Your task to perform on an android device: add a contact in the contacts app Image 0: 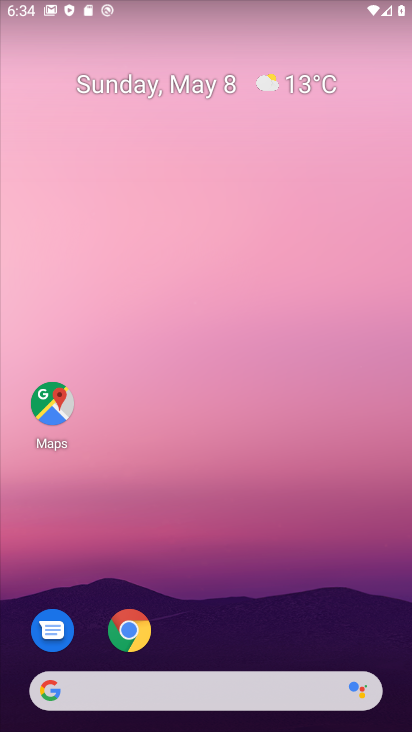
Step 0: drag from (266, 594) to (196, 38)
Your task to perform on an android device: add a contact in the contacts app Image 1: 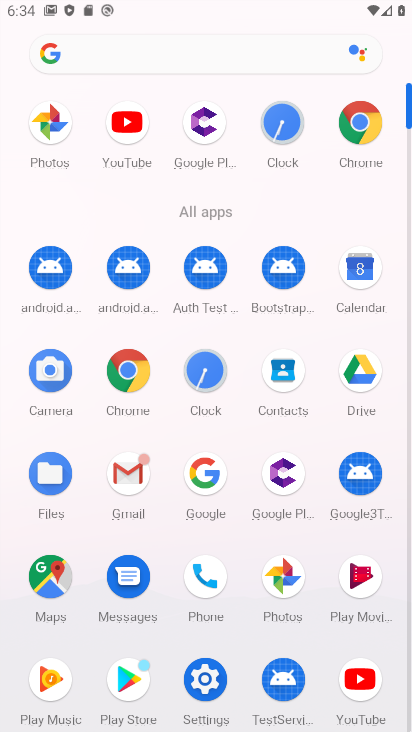
Step 1: click (276, 389)
Your task to perform on an android device: add a contact in the contacts app Image 2: 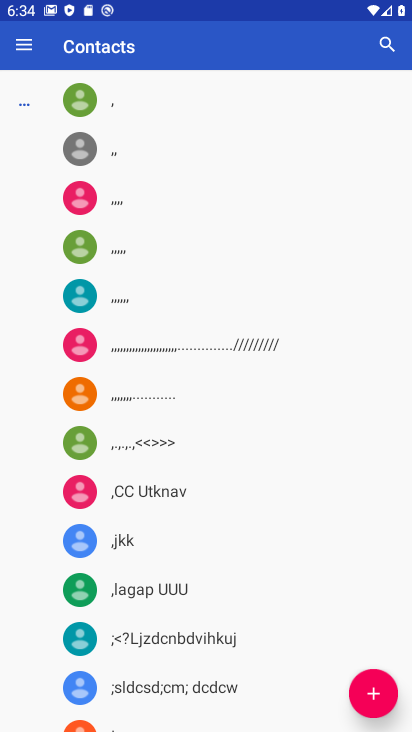
Step 2: click (378, 693)
Your task to perform on an android device: add a contact in the contacts app Image 3: 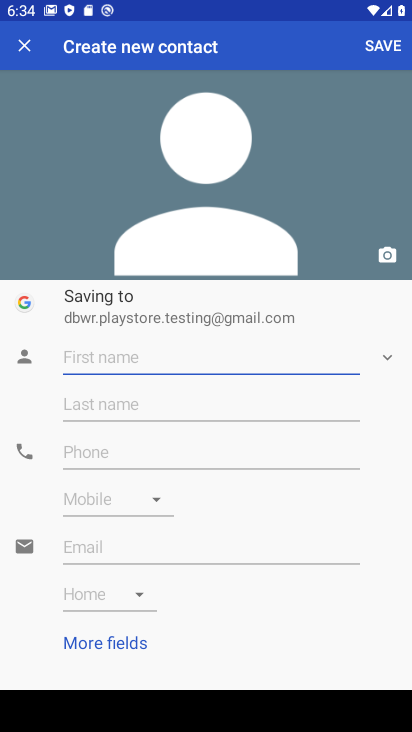
Step 3: type "trgfc"
Your task to perform on an android device: add a contact in the contacts app Image 4: 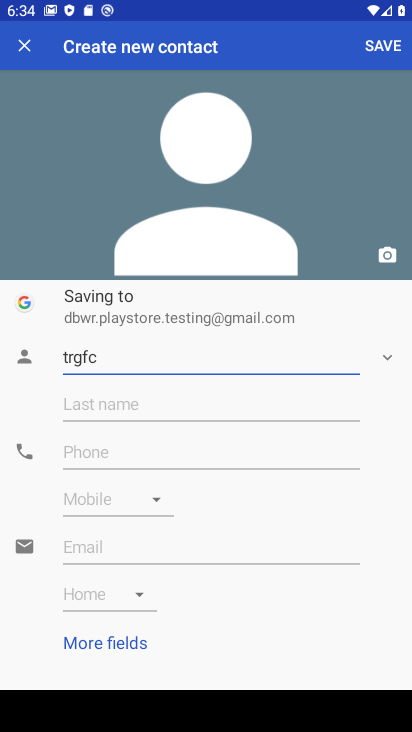
Step 4: click (100, 447)
Your task to perform on an android device: add a contact in the contacts app Image 5: 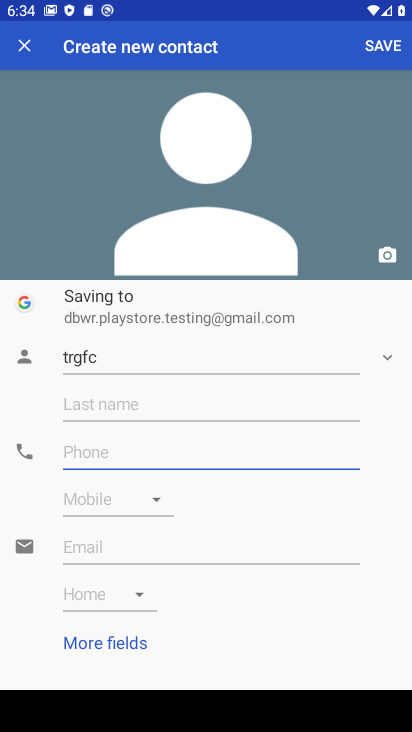
Step 5: type "54654"
Your task to perform on an android device: add a contact in the contacts app Image 6: 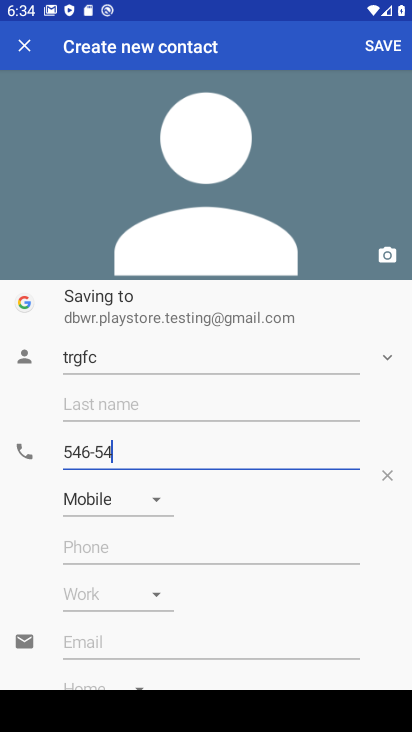
Step 6: click (376, 47)
Your task to perform on an android device: add a contact in the contacts app Image 7: 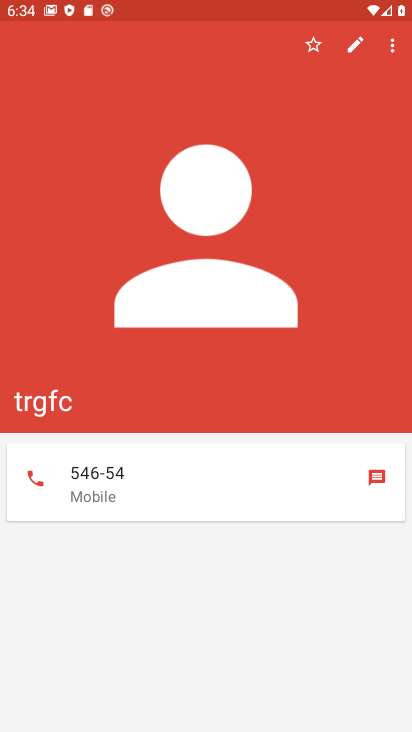
Step 7: task complete